Your task to perform on an android device: Open ESPN.com Image 0: 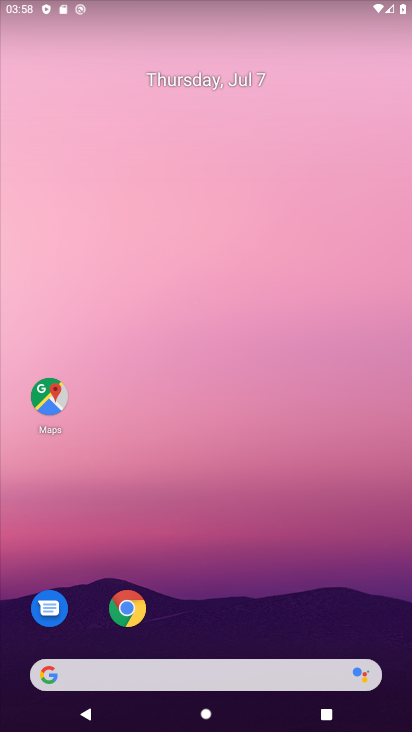
Step 0: click (133, 614)
Your task to perform on an android device: Open ESPN.com Image 1: 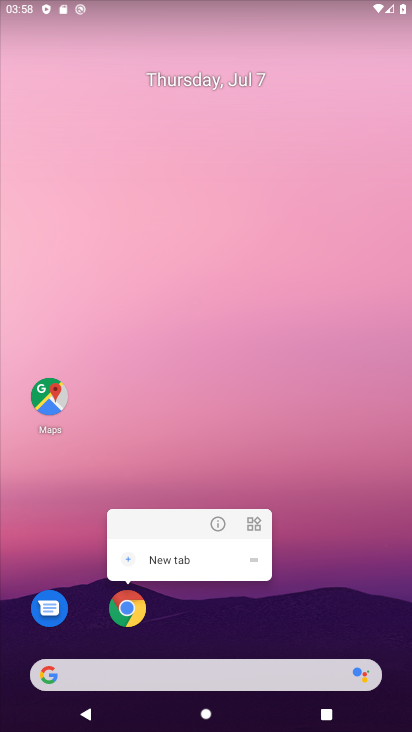
Step 1: click (133, 614)
Your task to perform on an android device: Open ESPN.com Image 2: 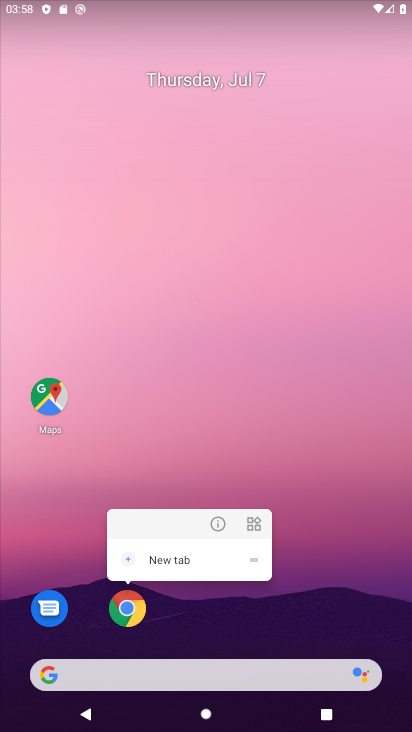
Step 2: click (133, 614)
Your task to perform on an android device: Open ESPN.com Image 3: 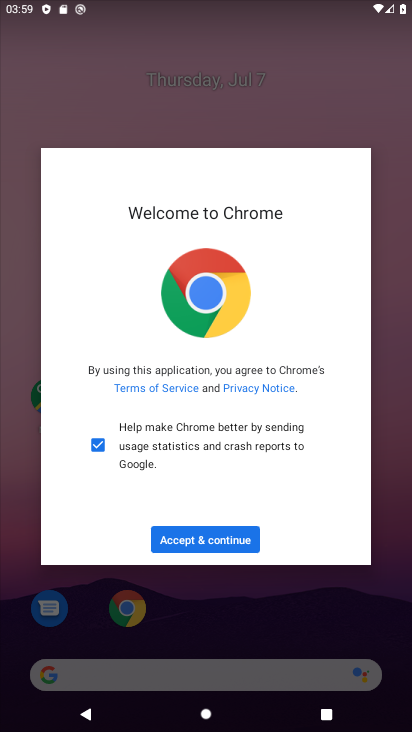
Step 3: click (215, 536)
Your task to perform on an android device: Open ESPN.com Image 4: 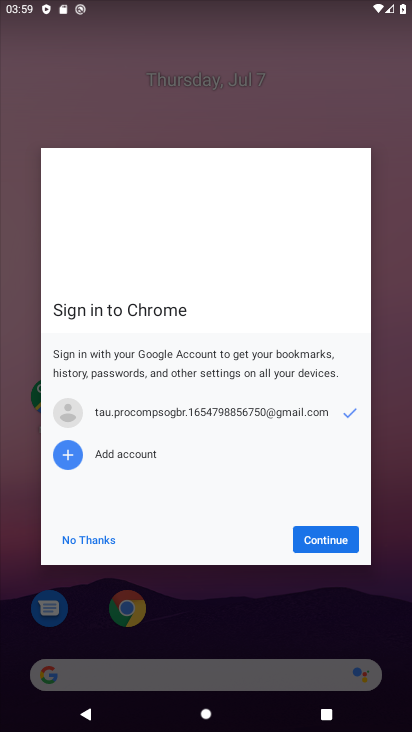
Step 4: click (324, 547)
Your task to perform on an android device: Open ESPN.com Image 5: 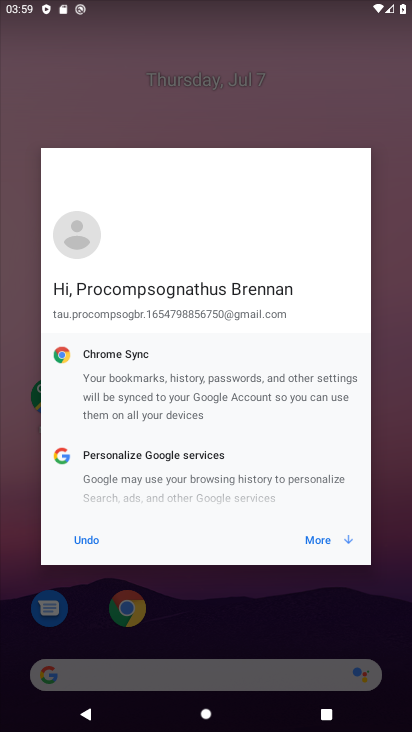
Step 5: click (324, 547)
Your task to perform on an android device: Open ESPN.com Image 6: 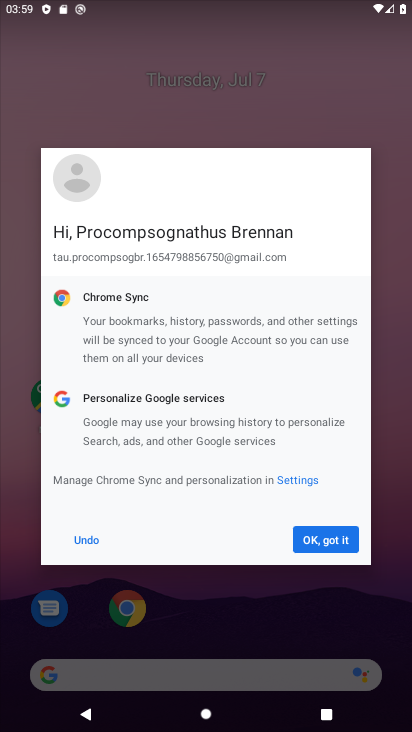
Step 6: click (324, 547)
Your task to perform on an android device: Open ESPN.com Image 7: 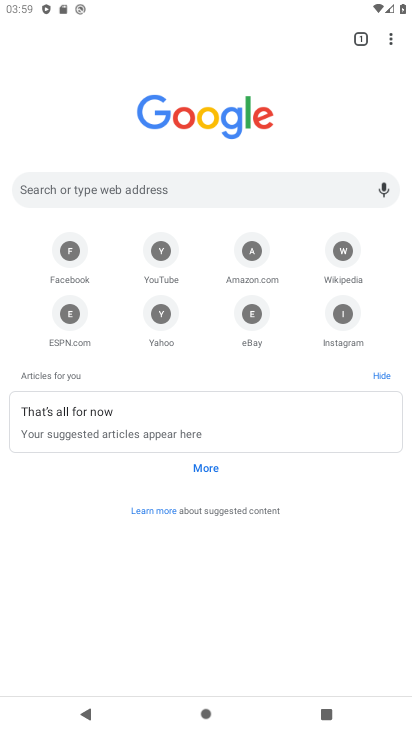
Step 7: click (67, 321)
Your task to perform on an android device: Open ESPN.com Image 8: 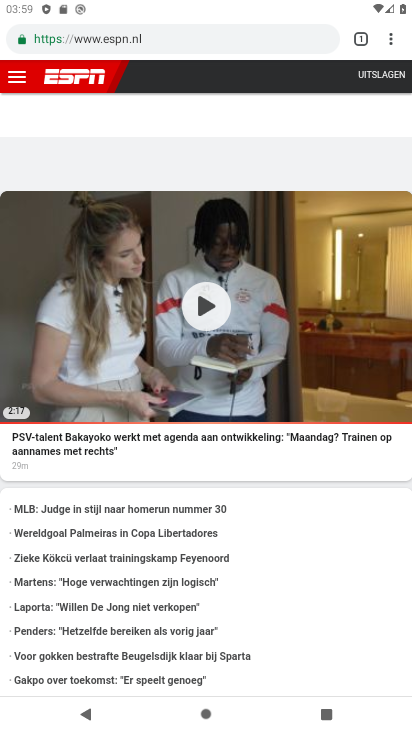
Step 8: task complete